Your task to perform on an android device: change the clock display to show seconds Image 0: 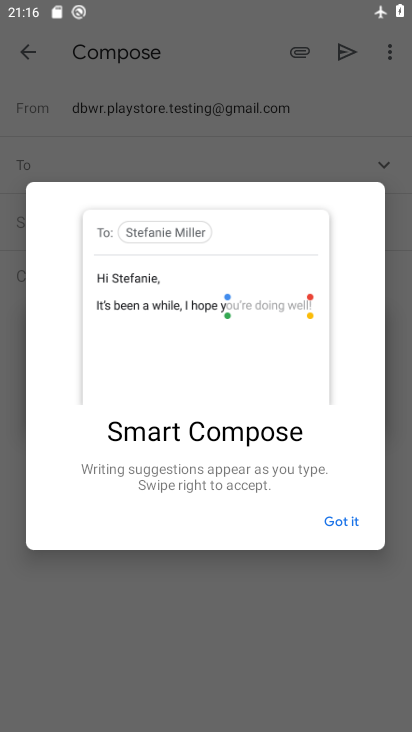
Step 0: press home button
Your task to perform on an android device: change the clock display to show seconds Image 1: 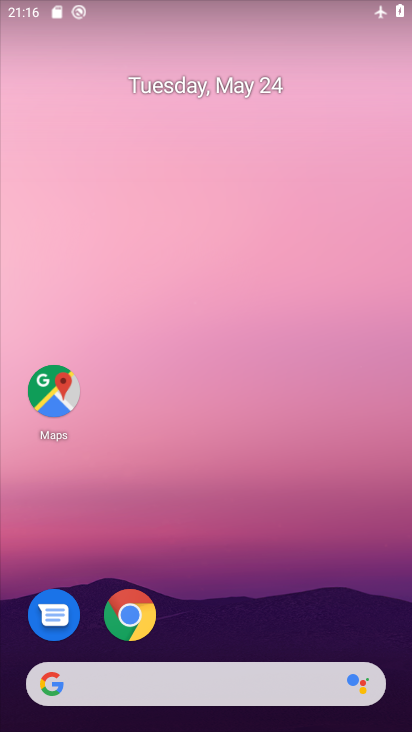
Step 1: drag from (234, 600) to (256, 221)
Your task to perform on an android device: change the clock display to show seconds Image 2: 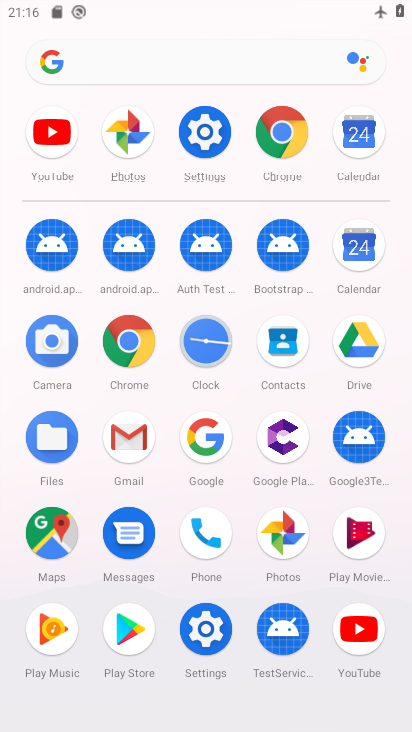
Step 2: click (201, 122)
Your task to perform on an android device: change the clock display to show seconds Image 3: 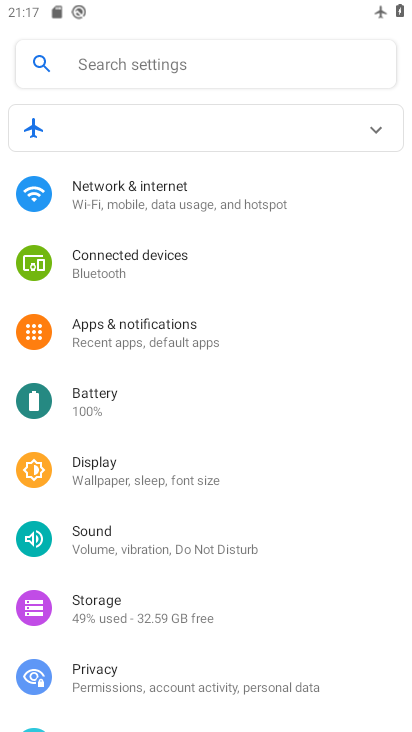
Step 3: press home button
Your task to perform on an android device: change the clock display to show seconds Image 4: 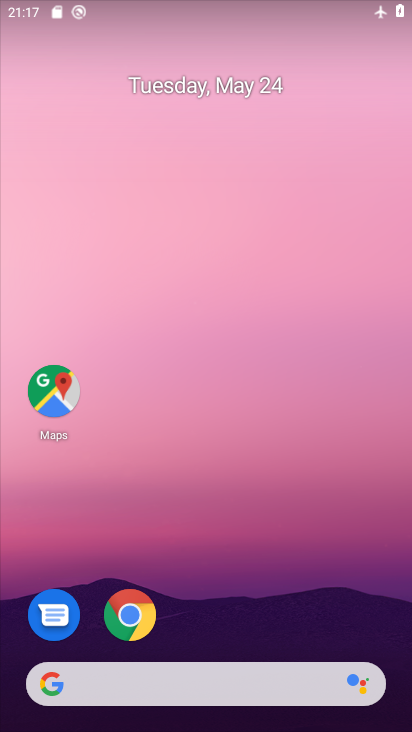
Step 4: drag from (260, 593) to (236, 273)
Your task to perform on an android device: change the clock display to show seconds Image 5: 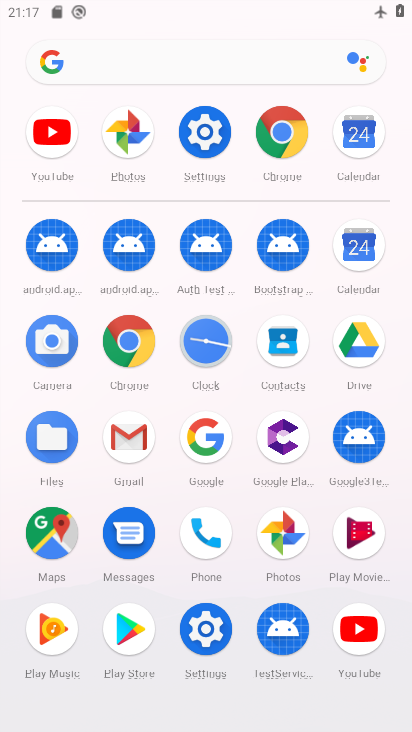
Step 5: click (204, 341)
Your task to perform on an android device: change the clock display to show seconds Image 6: 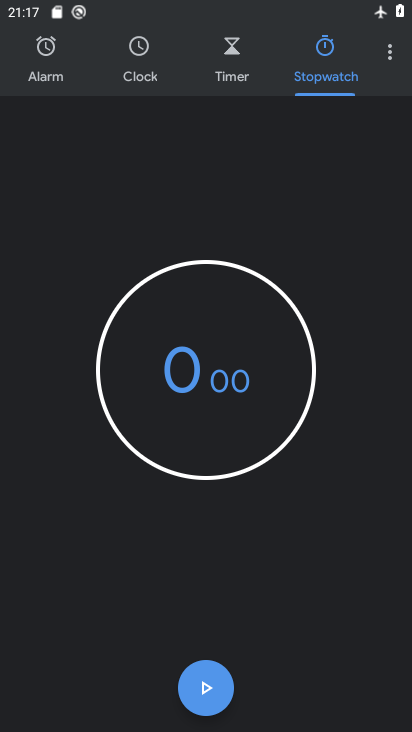
Step 6: click (393, 50)
Your task to perform on an android device: change the clock display to show seconds Image 7: 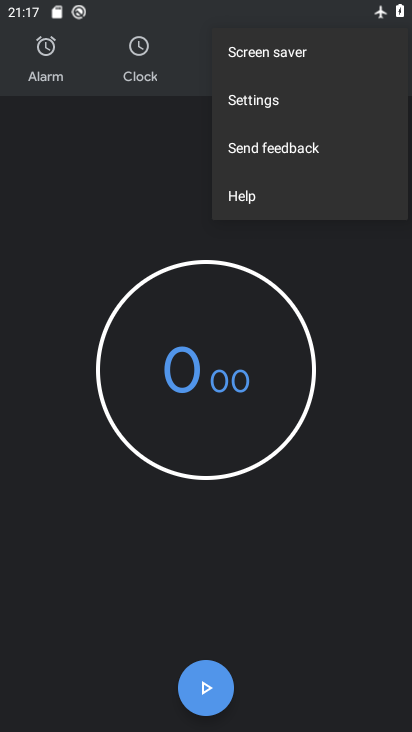
Step 7: click (283, 103)
Your task to perform on an android device: change the clock display to show seconds Image 8: 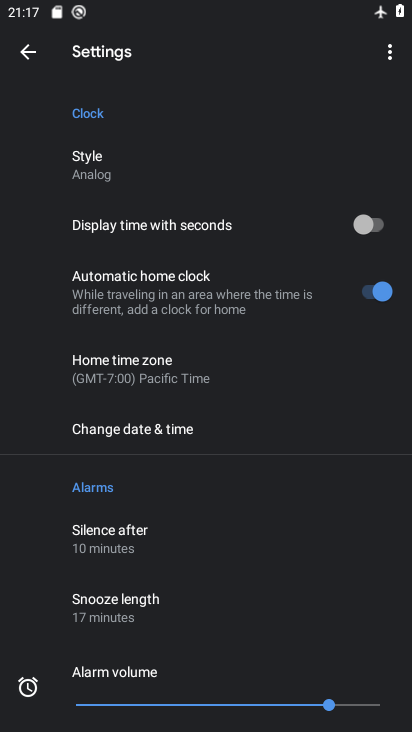
Step 8: click (391, 218)
Your task to perform on an android device: change the clock display to show seconds Image 9: 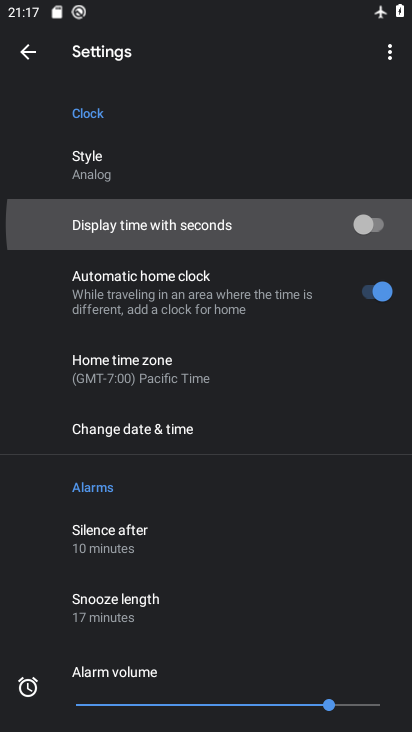
Step 9: click (376, 220)
Your task to perform on an android device: change the clock display to show seconds Image 10: 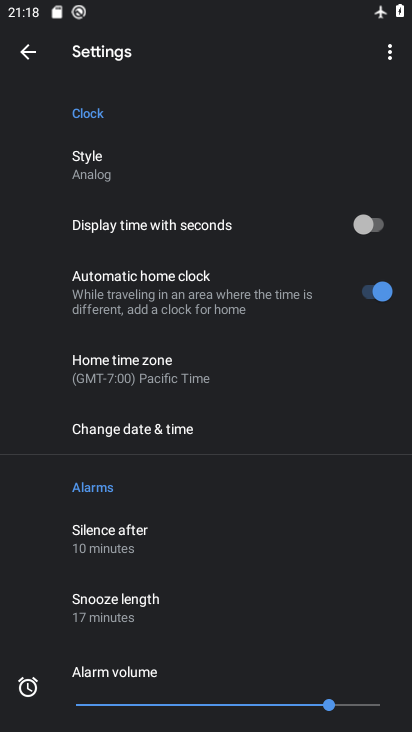
Step 10: task complete